Your task to perform on an android device: Go to notification settings Image 0: 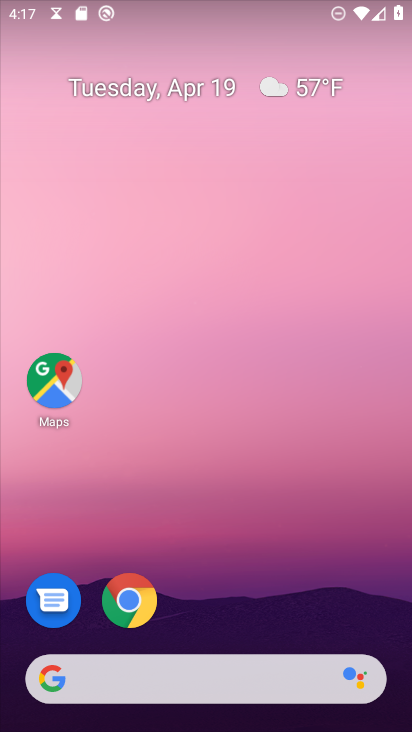
Step 0: drag from (337, 610) to (283, 104)
Your task to perform on an android device: Go to notification settings Image 1: 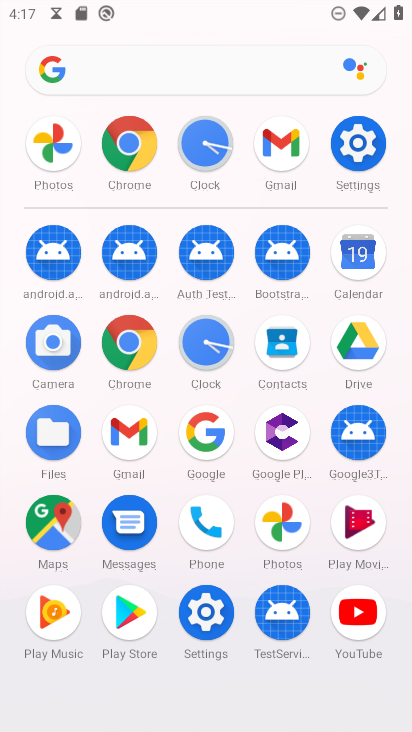
Step 1: click (349, 151)
Your task to perform on an android device: Go to notification settings Image 2: 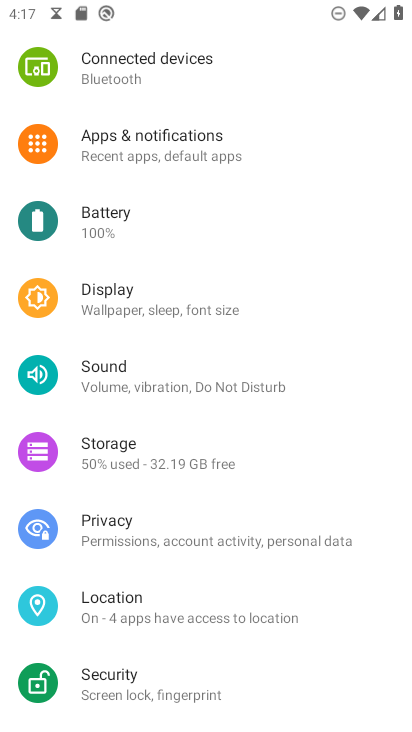
Step 2: task complete